Your task to perform on an android device: set default search engine in the chrome app Image 0: 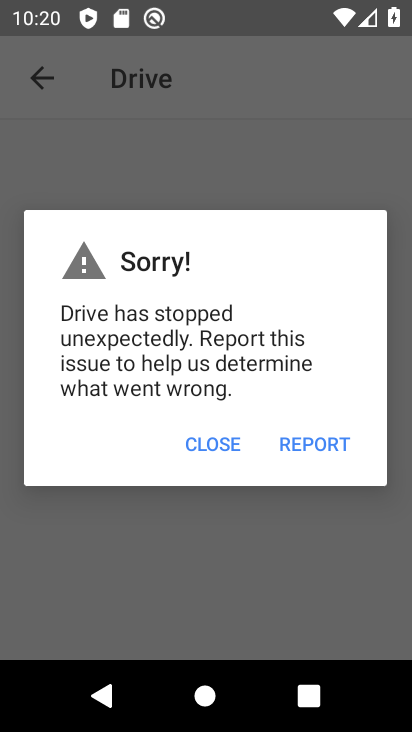
Step 0: drag from (272, 382) to (267, 145)
Your task to perform on an android device: set default search engine in the chrome app Image 1: 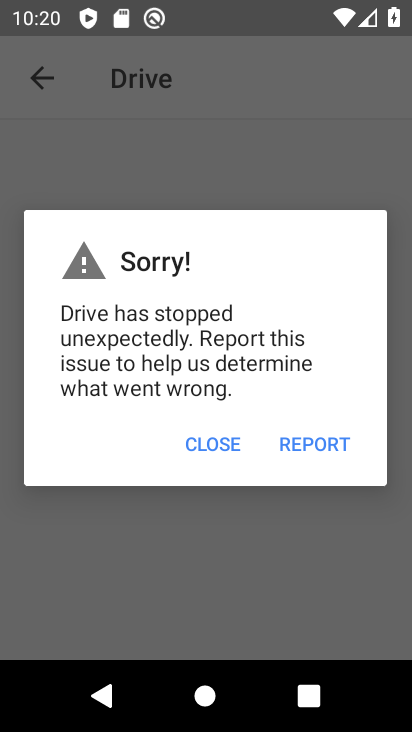
Step 1: press home button
Your task to perform on an android device: set default search engine in the chrome app Image 2: 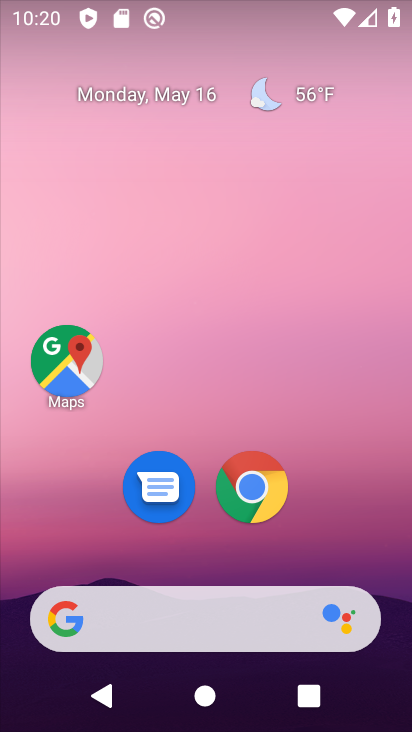
Step 2: drag from (291, 422) to (274, 112)
Your task to perform on an android device: set default search engine in the chrome app Image 3: 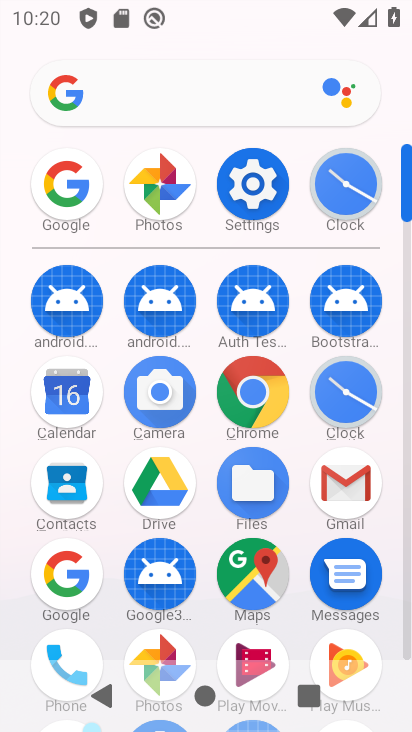
Step 3: click (246, 399)
Your task to perform on an android device: set default search engine in the chrome app Image 4: 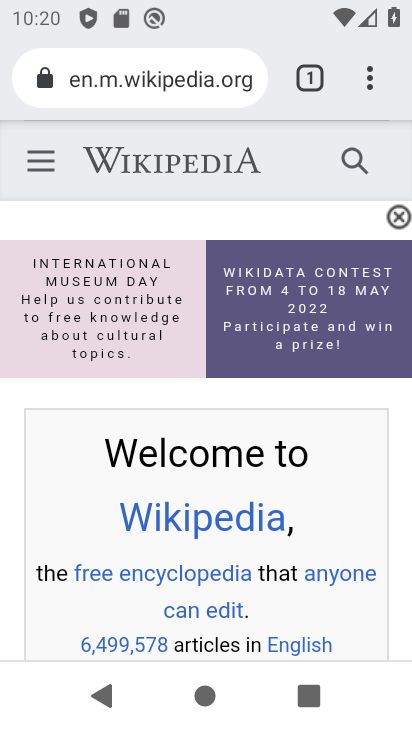
Step 4: click (371, 86)
Your task to perform on an android device: set default search engine in the chrome app Image 5: 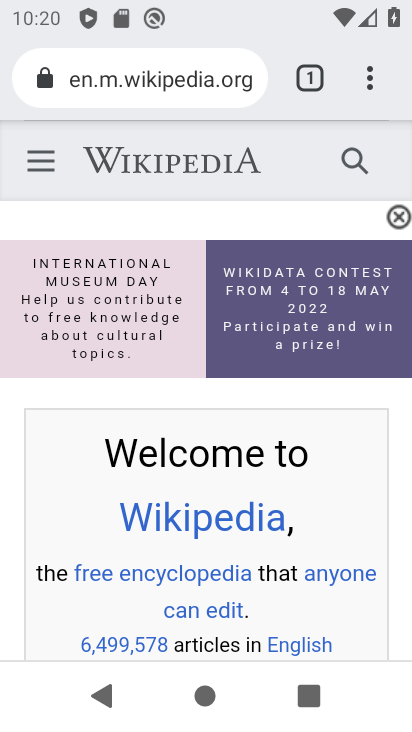
Step 5: drag from (107, 563) to (111, 366)
Your task to perform on an android device: set default search engine in the chrome app Image 6: 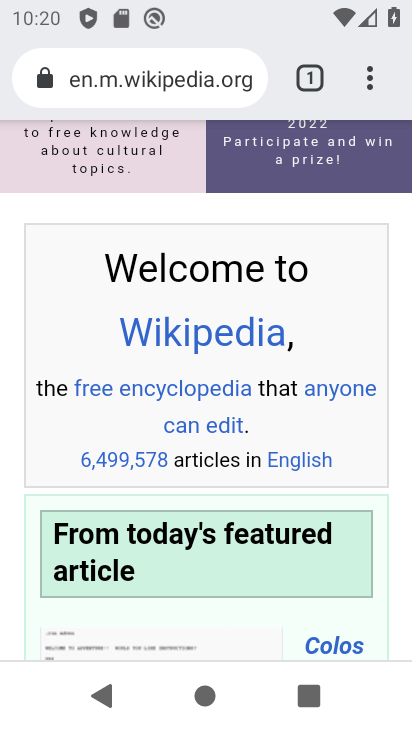
Step 6: click (368, 86)
Your task to perform on an android device: set default search engine in the chrome app Image 7: 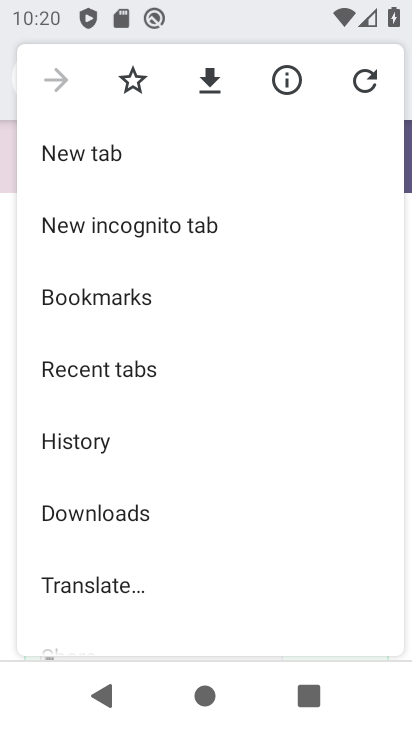
Step 7: drag from (161, 412) to (154, 199)
Your task to perform on an android device: set default search engine in the chrome app Image 8: 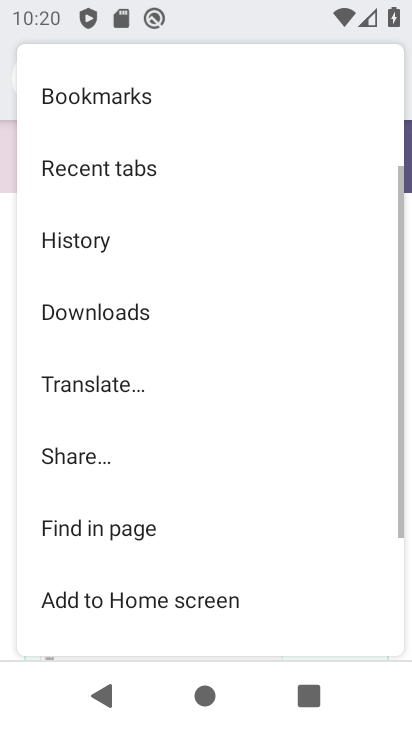
Step 8: drag from (134, 527) to (133, 385)
Your task to perform on an android device: set default search engine in the chrome app Image 9: 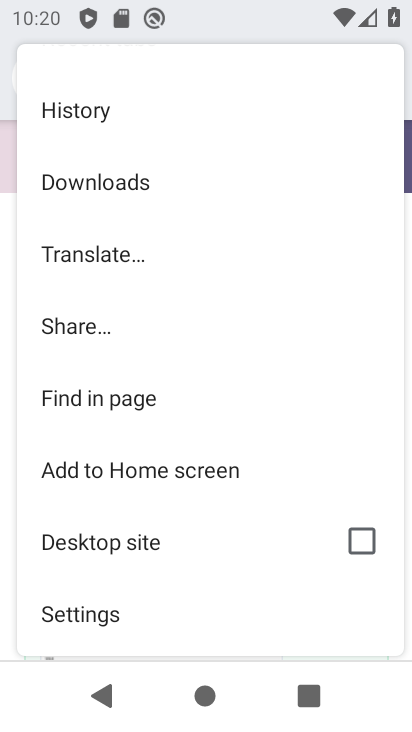
Step 9: click (104, 620)
Your task to perform on an android device: set default search engine in the chrome app Image 10: 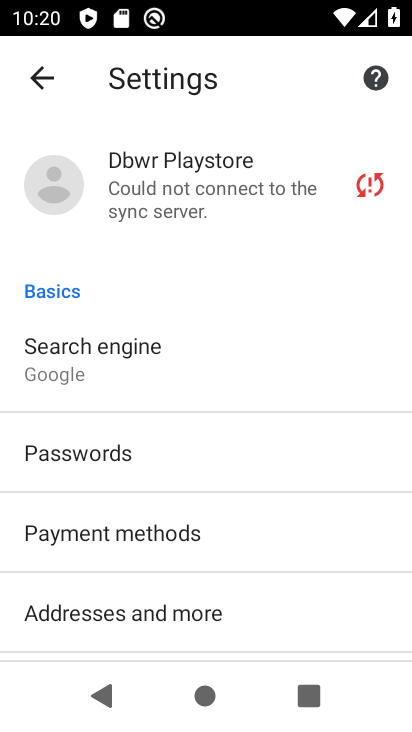
Step 10: click (74, 351)
Your task to perform on an android device: set default search engine in the chrome app Image 11: 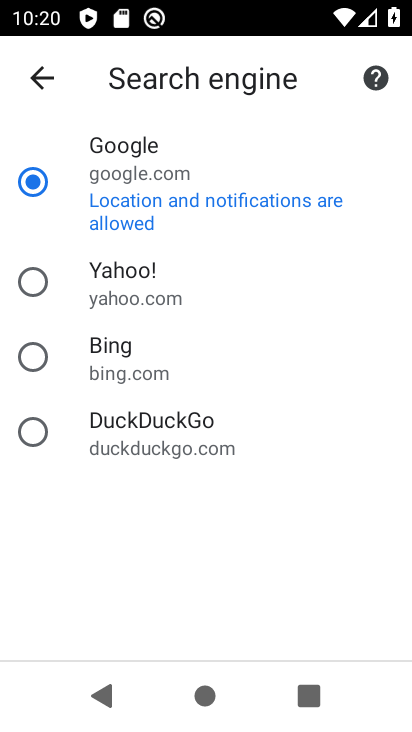
Step 11: click (29, 294)
Your task to perform on an android device: set default search engine in the chrome app Image 12: 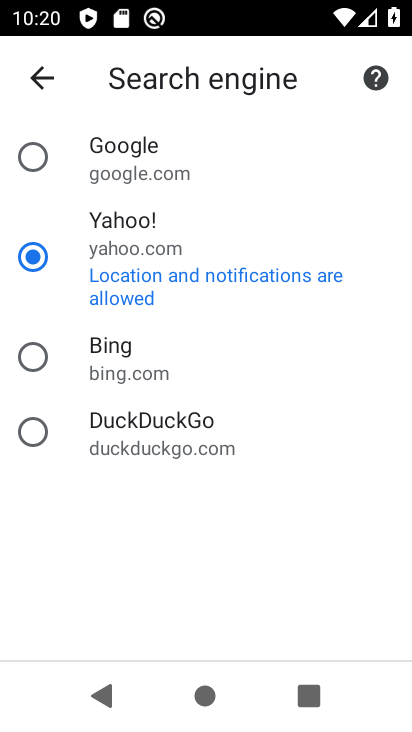
Step 12: task complete